Your task to perform on an android device: refresh tabs in the chrome app Image 0: 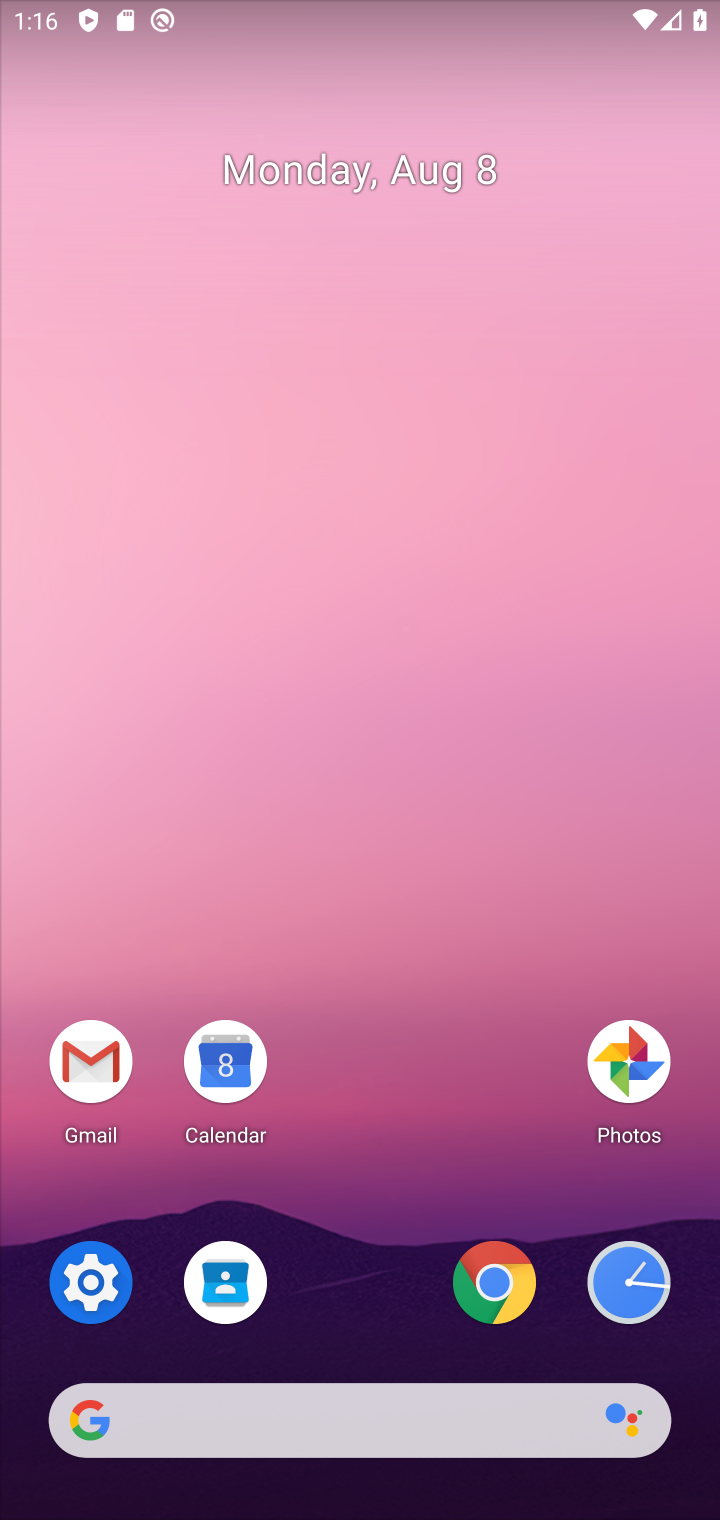
Step 0: click (493, 1282)
Your task to perform on an android device: refresh tabs in the chrome app Image 1: 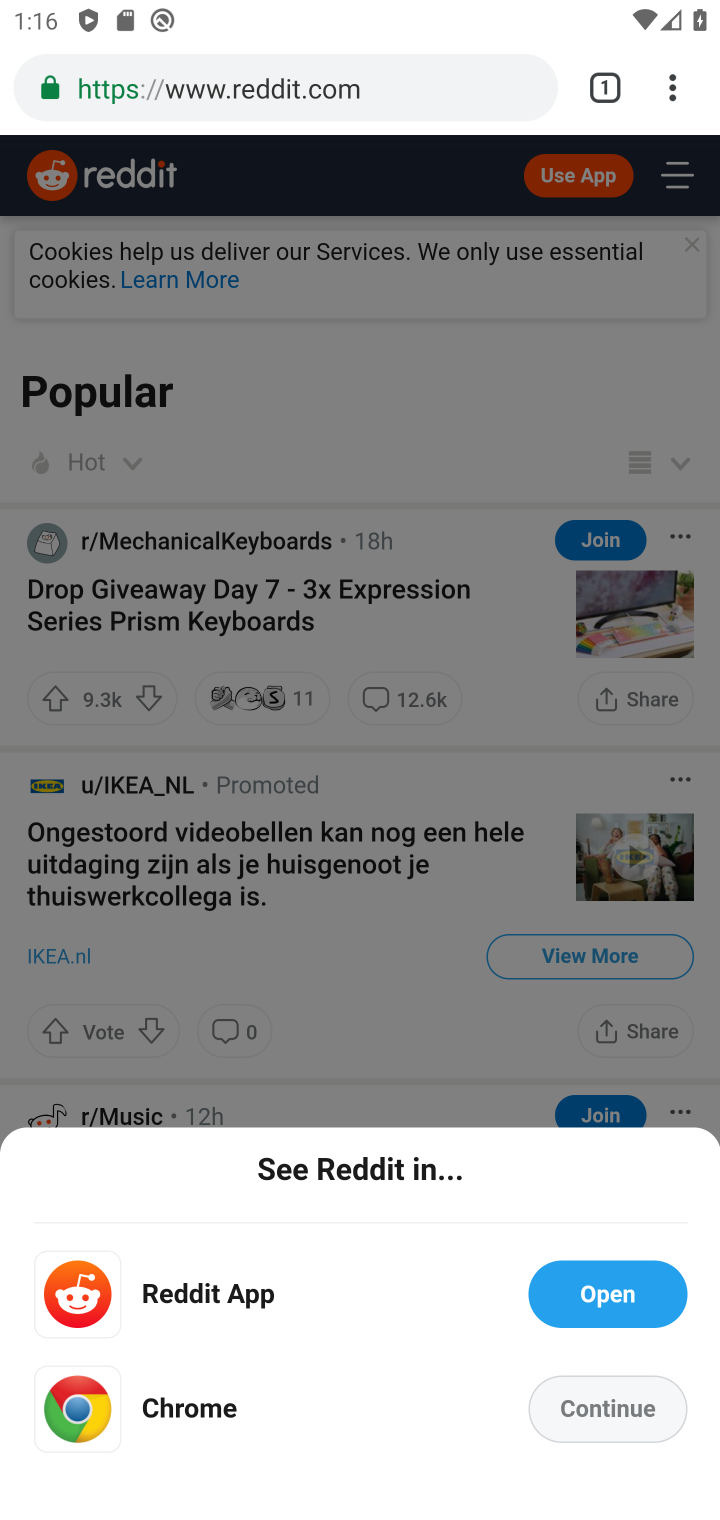
Step 1: click (689, 73)
Your task to perform on an android device: refresh tabs in the chrome app Image 2: 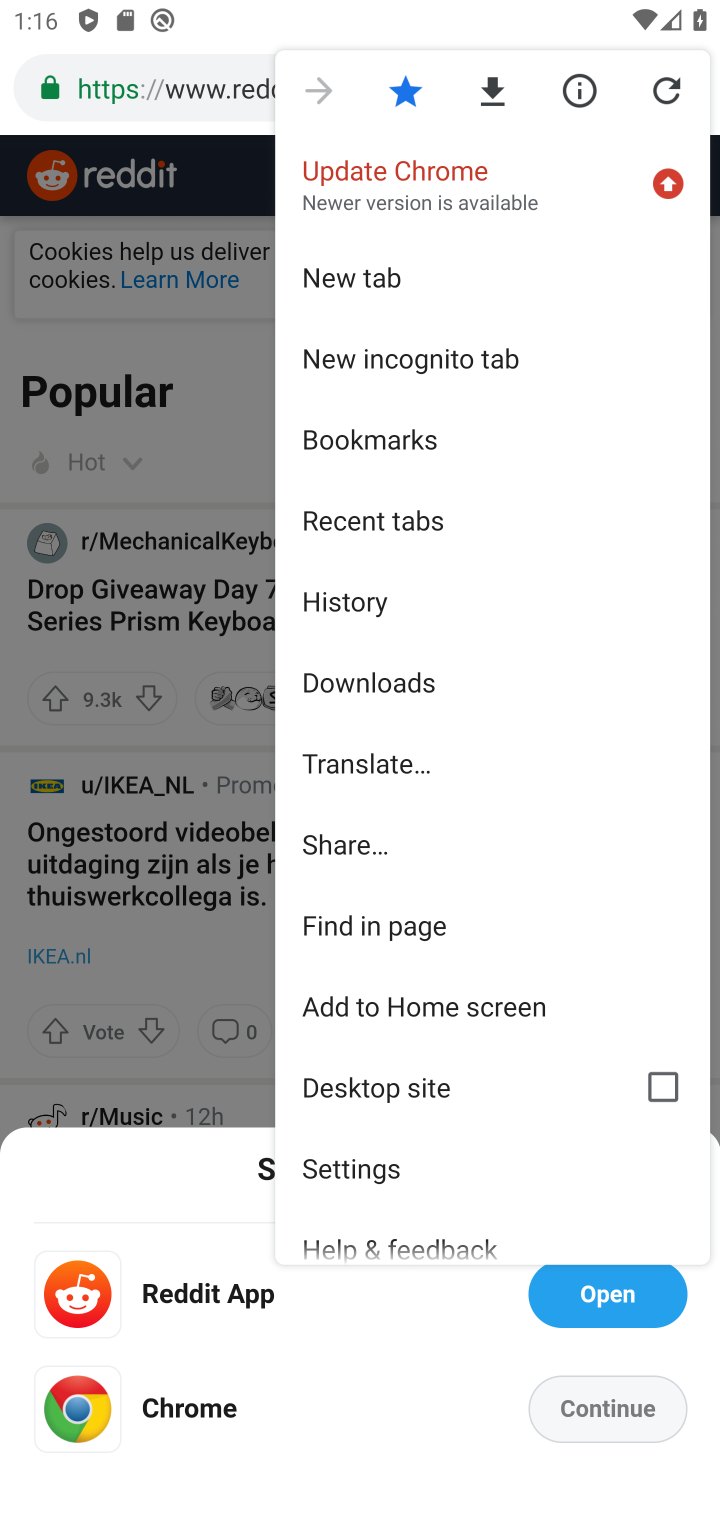
Step 2: click (669, 96)
Your task to perform on an android device: refresh tabs in the chrome app Image 3: 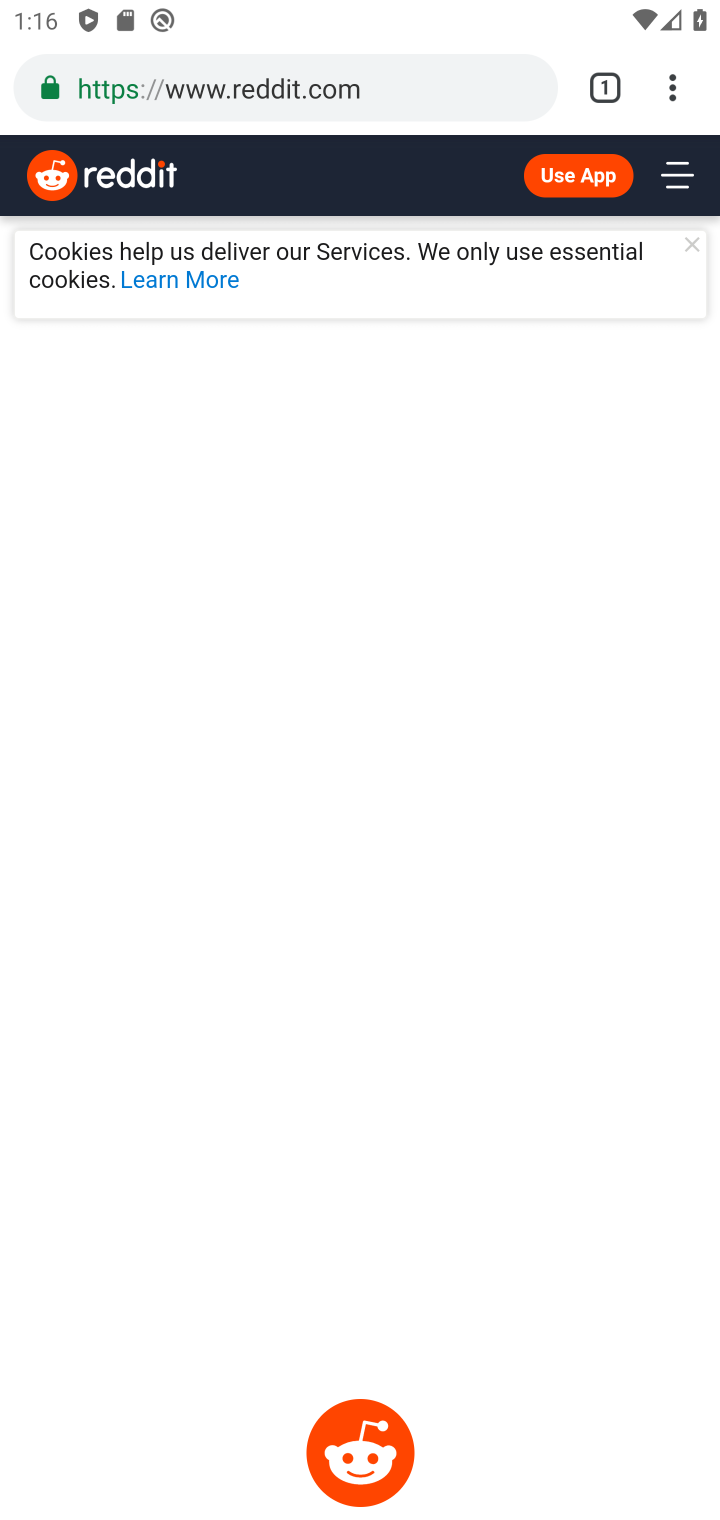
Step 3: task complete